Your task to perform on an android device: set the stopwatch Image 0: 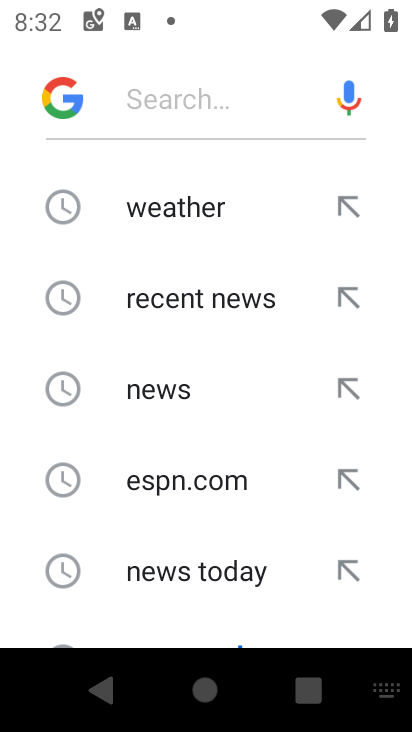
Step 0: press home button
Your task to perform on an android device: set the stopwatch Image 1: 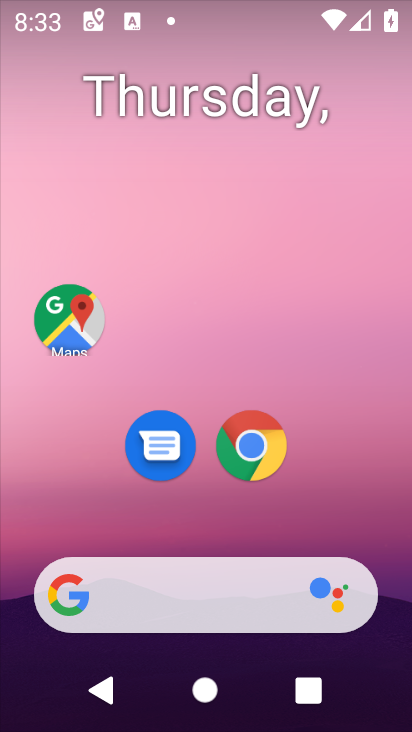
Step 1: drag from (127, 574) to (373, 83)
Your task to perform on an android device: set the stopwatch Image 2: 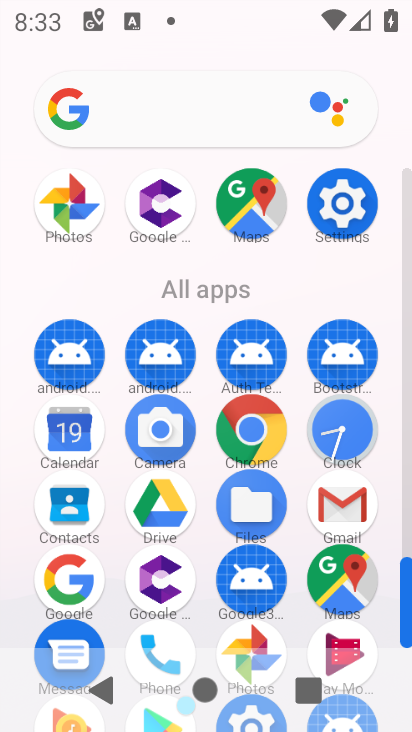
Step 2: click (326, 421)
Your task to perform on an android device: set the stopwatch Image 3: 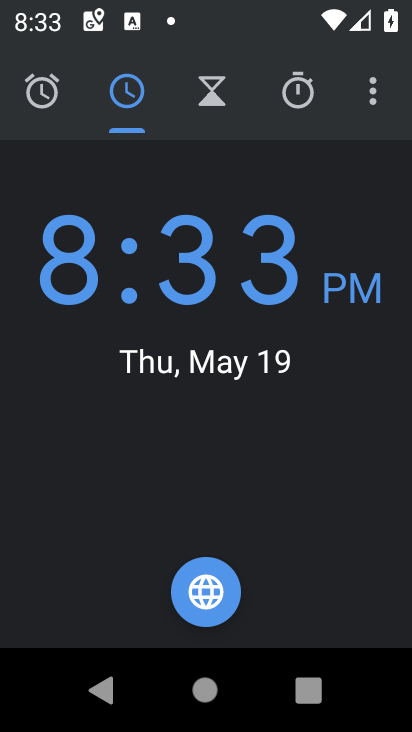
Step 3: click (292, 88)
Your task to perform on an android device: set the stopwatch Image 4: 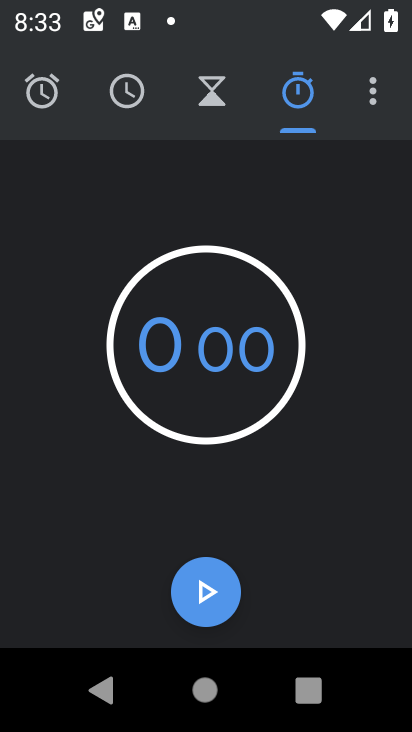
Step 4: click (213, 587)
Your task to perform on an android device: set the stopwatch Image 5: 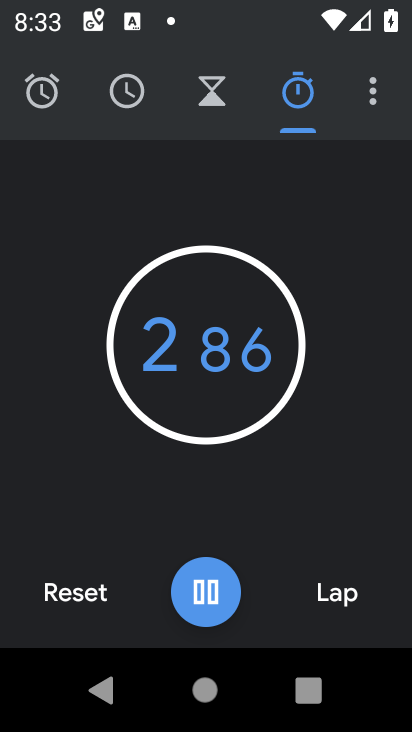
Step 5: task complete